Your task to perform on an android device: Go to Google maps Image 0: 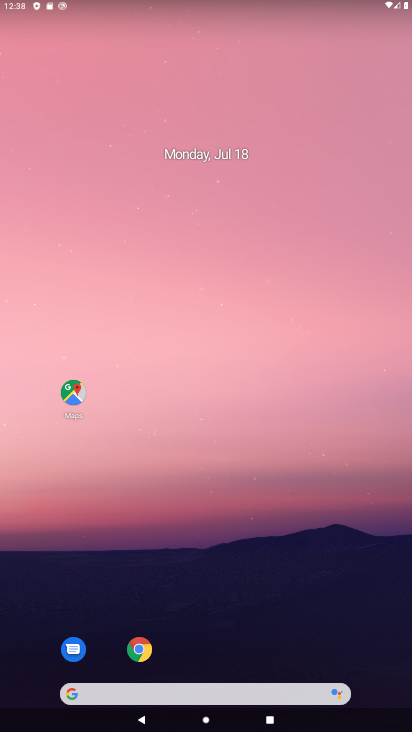
Step 0: click (76, 390)
Your task to perform on an android device: Go to Google maps Image 1: 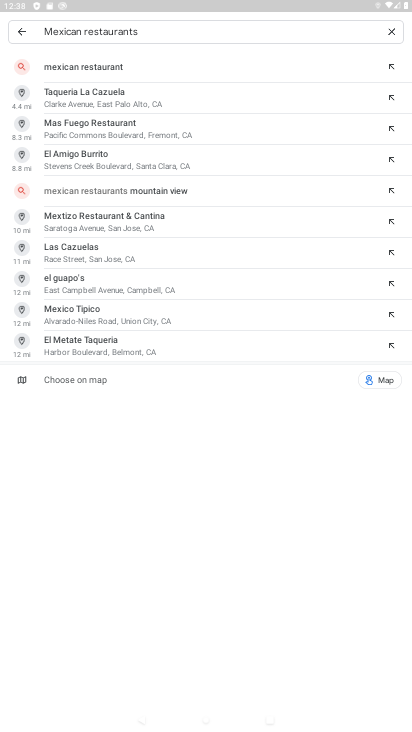
Step 1: click (28, 34)
Your task to perform on an android device: Go to Google maps Image 2: 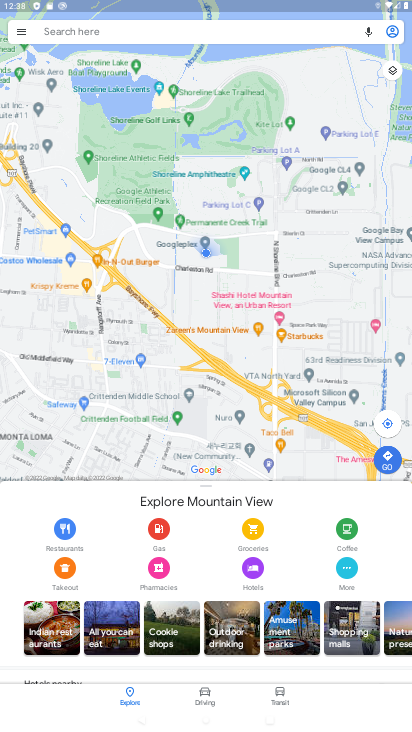
Step 2: task complete